Your task to perform on an android device: Go to Amazon Image 0: 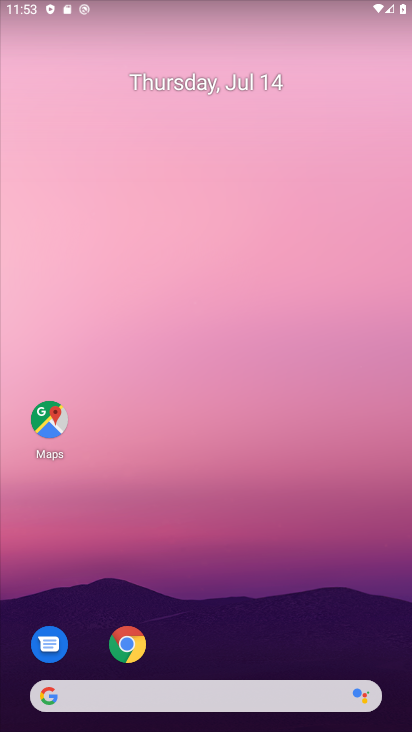
Step 0: click (147, 650)
Your task to perform on an android device: Go to Amazon Image 1: 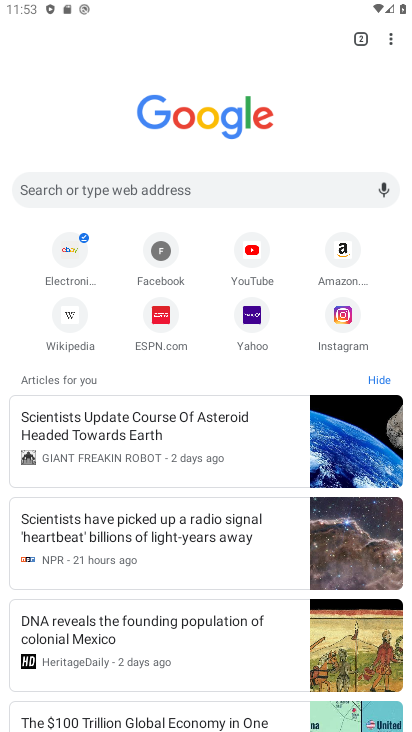
Step 1: click (347, 249)
Your task to perform on an android device: Go to Amazon Image 2: 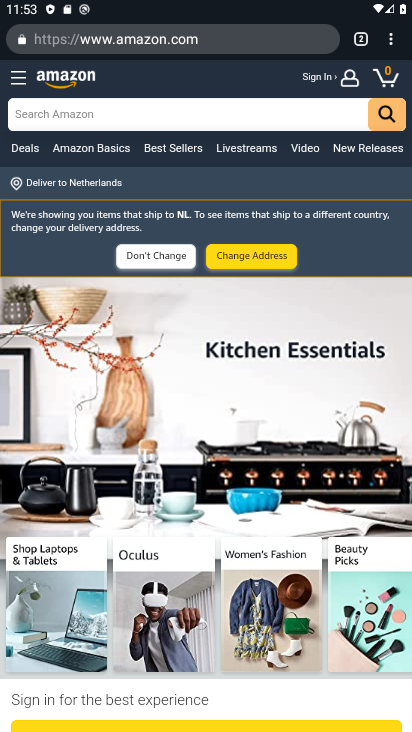
Step 2: task complete